Your task to perform on an android device: Check the news Image 0: 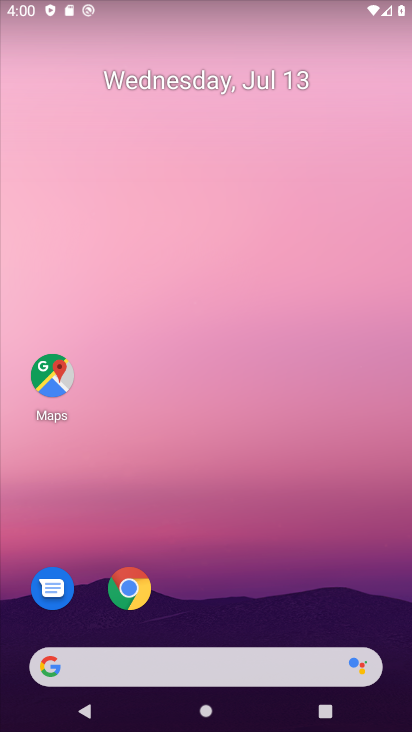
Step 0: click (89, 670)
Your task to perform on an android device: Check the news Image 1: 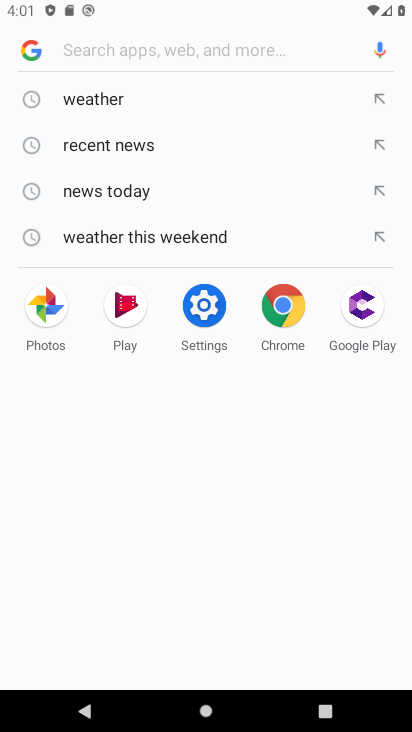
Step 1: type "Check the news"
Your task to perform on an android device: Check the news Image 2: 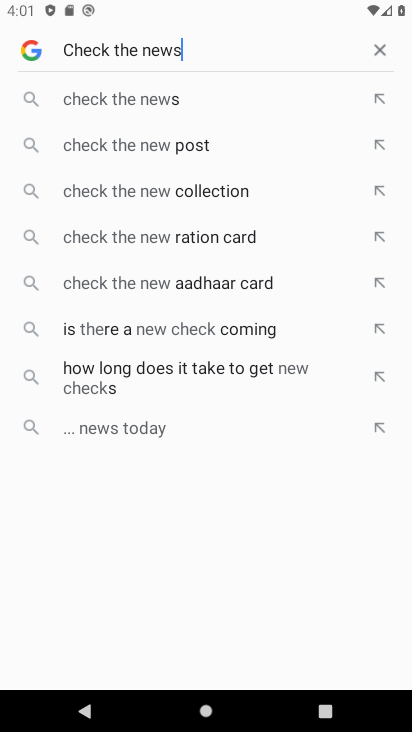
Step 2: type ""
Your task to perform on an android device: Check the news Image 3: 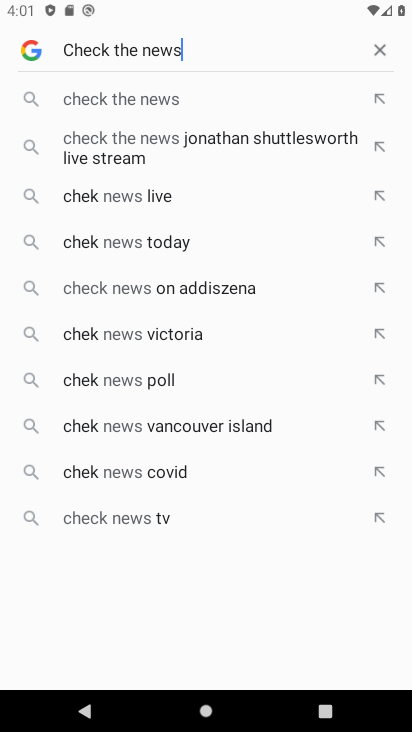
Step 3: click (160, 106)
Your task to perform on an android device: Check the news Image 4: 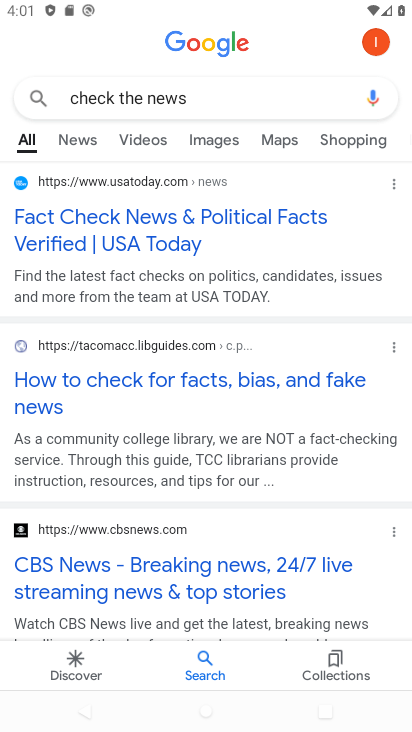
Step 4: task complete